Your task to perform on an android device: empty trash in the gmail app Image 0: 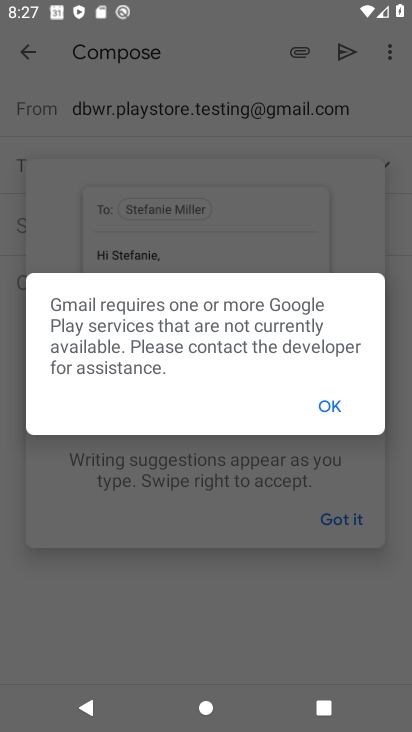
Step 0: press home button
Your task to perform on an android device: empty trash in the gmail app Image 1: 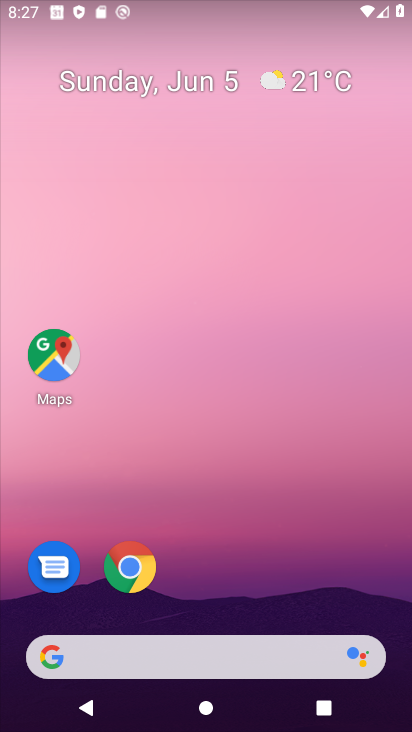
Step 1: drag from (195, 628) to (169, 399)
Your task to perform on an android device: empty trash in the gmail app Image 2: 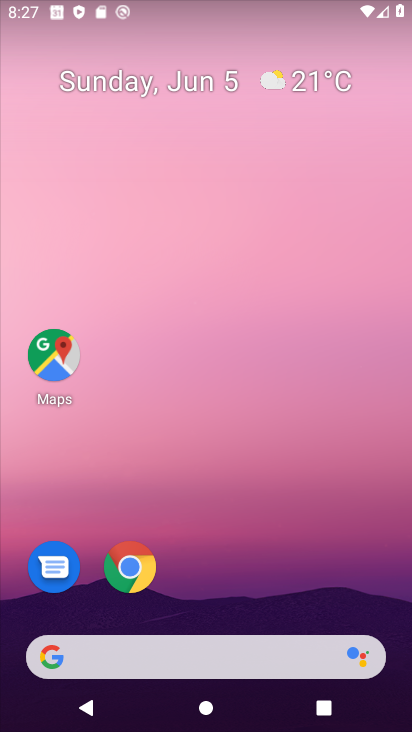
Step 2: drag from (169, 642) to (147, 252)
Your task to perform on an android device: empty trash in the gmail app Image 3: 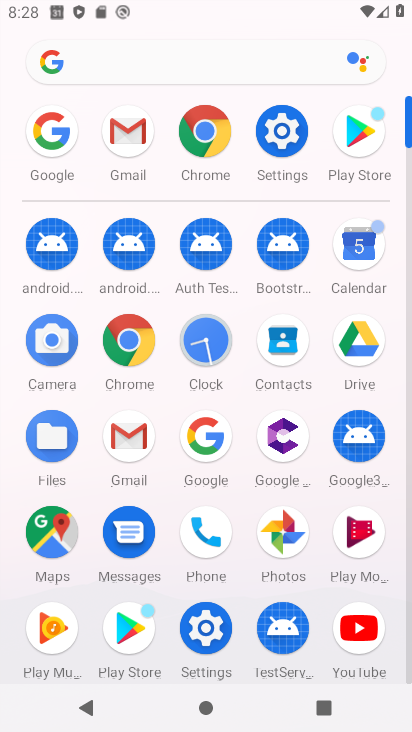
Step 3: click (137, 441)
Your task to perform on an android device: empty trash in the gmail app Image 4: 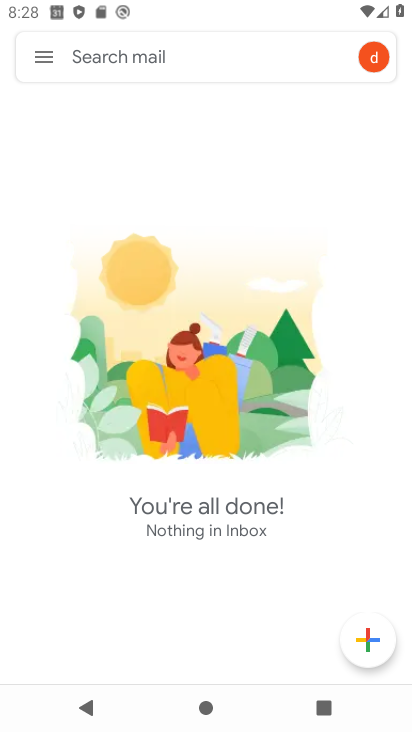
Step 4: click (52, 59)
Your task to perform on an android device: empty trash in the gmail app Image 5: 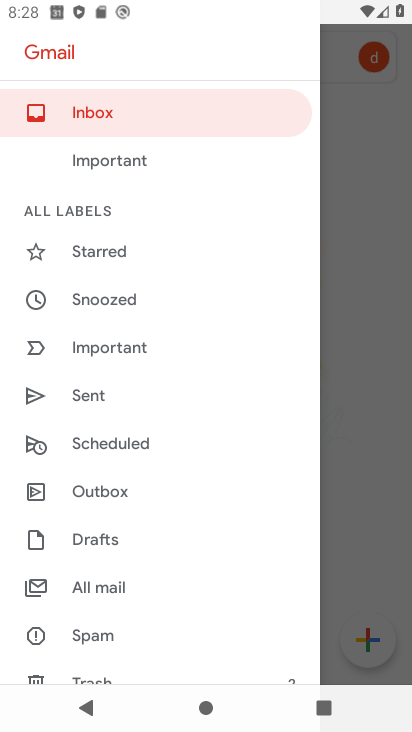
Step 5: drag from (104, 656) to (93, 322)
Your task to perform on an android device: empty trash in the gmail app Image 6: 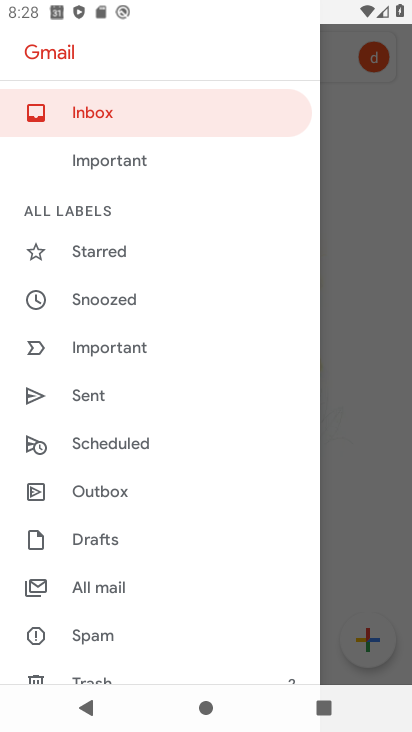
Step 6: drag from (103, 647) to (98, 311)
Your task to perform on an android device: empty trash in the gmail app Image 7: 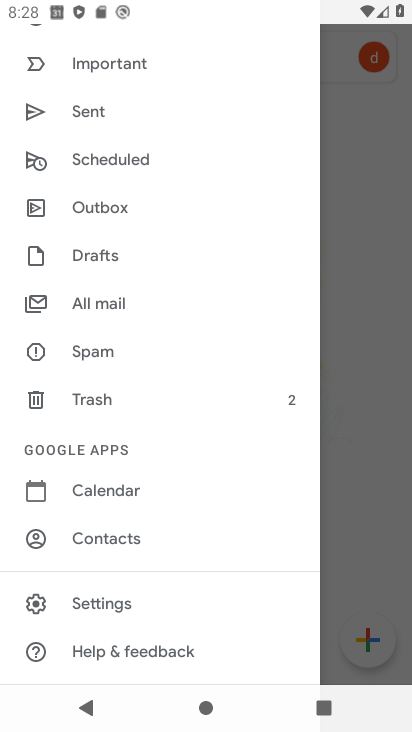
Step 7: click (100, 400)
Your task to perform on an android device: empty trash in the gmail app Image 8: 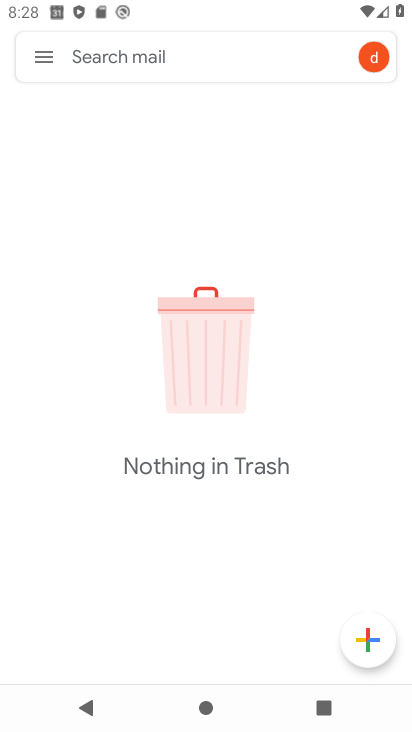
Step 8: task complete